Your task to perform on an android device: Search for seafood restaurants on Google Maps Image 0: 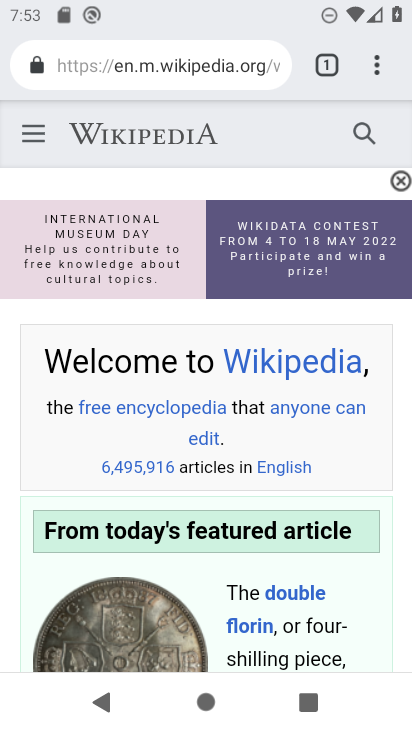
Step 0: press home button
Your task to perform on an android device: Search for seafood restaurants on Google Maps Image 1: 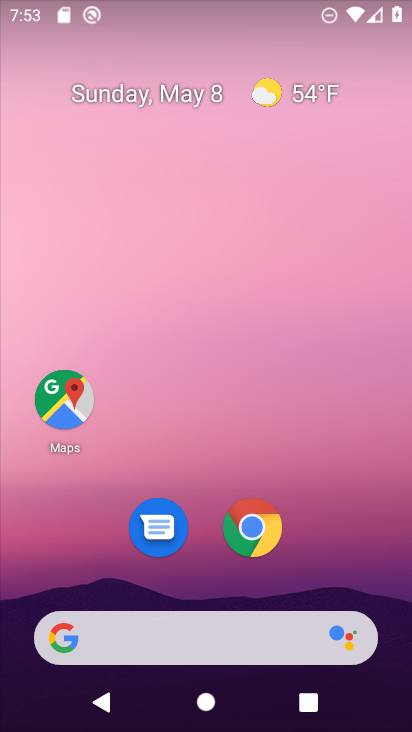
Step 1: drag from (359, 540) to (294, 115)
Your task to perform on an android device: Search for seafood restaurants on Google Maps Image 2: 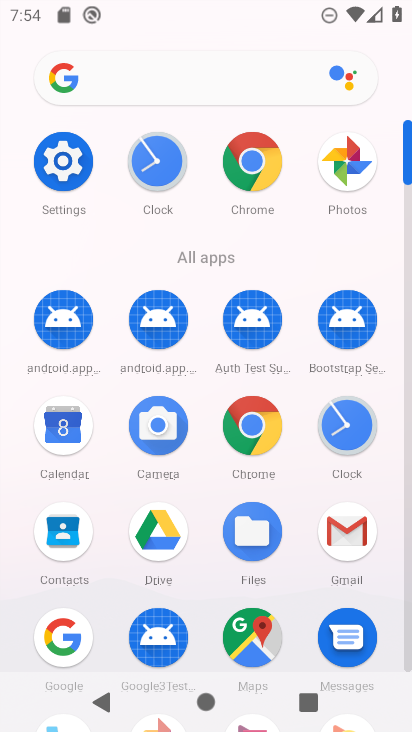
Step 2: click (264, 645)
Your task to perform on an android device: Search for seafood restaurants on Google Maps Image 3: 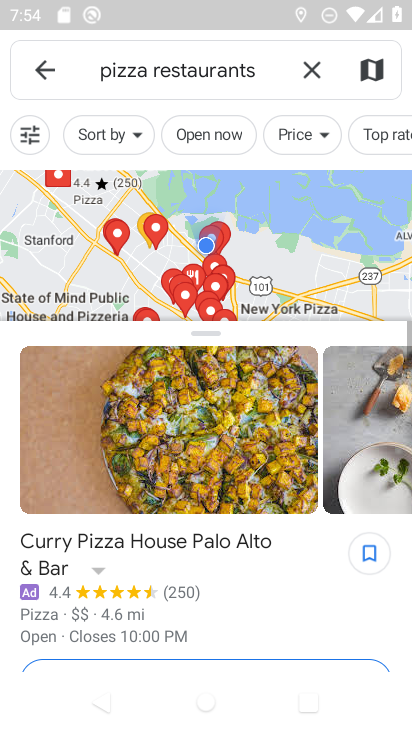
Step 3: click (265, 66)
Your task to perform on an android device: Search for seafood restaurants on Google Maps Image 4: 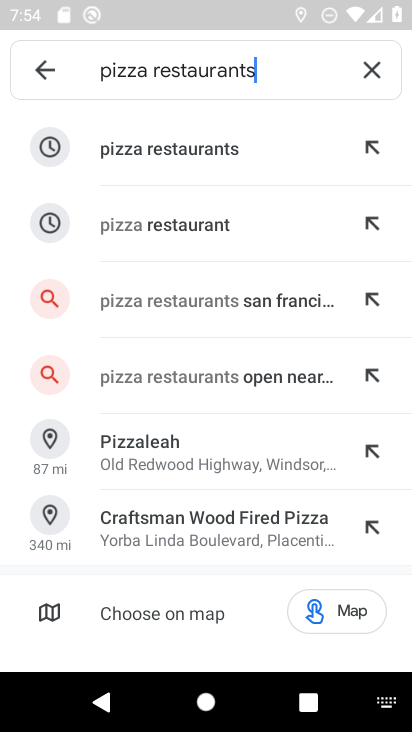
Step 4: click (376, 65)
Your task to perform on an android device: Search for seafood restaurants on Google Maps Image 5: 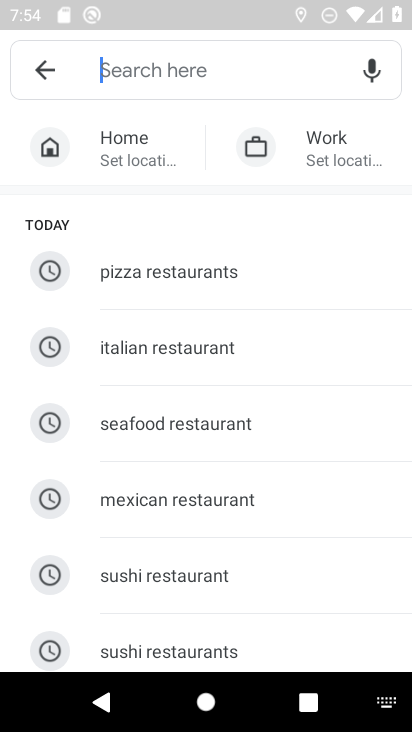
Step 5: type "seafood restaurants"
Your task to perform on an android device: Search for seafood restaurants on Google Maps Image 6: 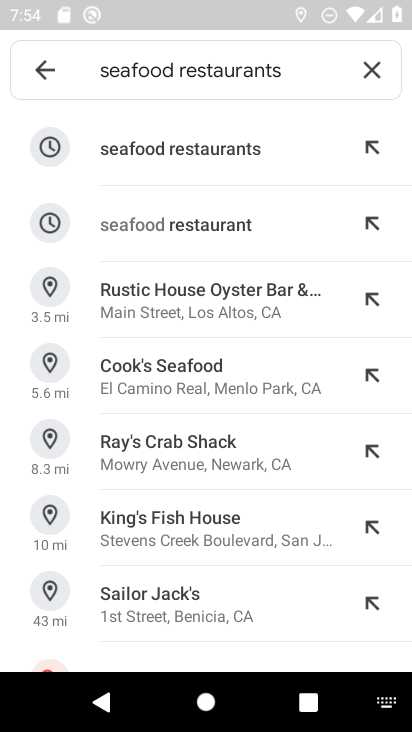
Step 6: click (203, 141)
Your task to perform on an android device: Search for seafood restaurants on Google Maps Image 7: 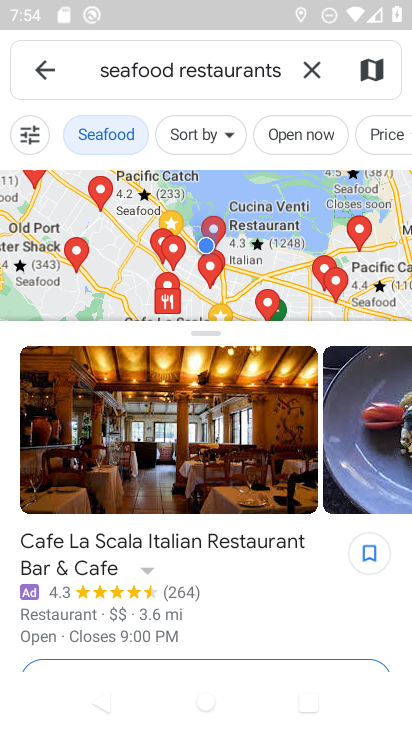
Step 7: task complete